Your task to perform on an android device: create a new album in the google photos Image 0: 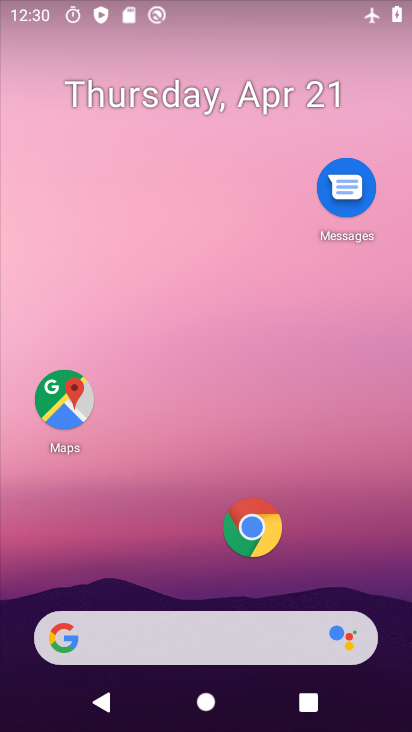
Step 0: drag from (286, 571) to (307, 90)
Your task to perform on an android device: create a new album in the google photos Image 1: 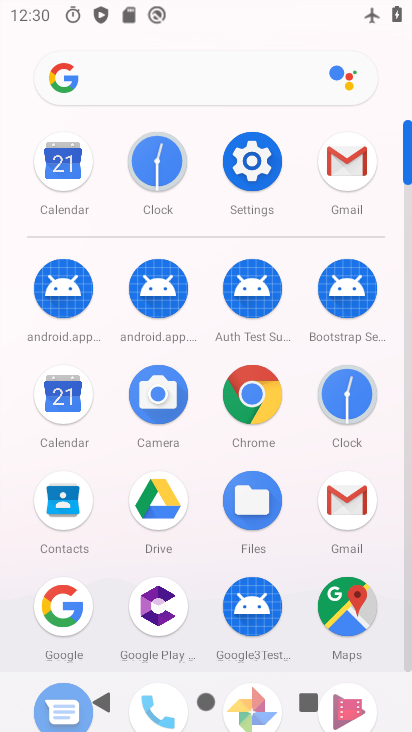
Step 1: drag from (215, 616) to (249, 431)
Your task to perform on an android device: create a new album in the google photos Image 2: 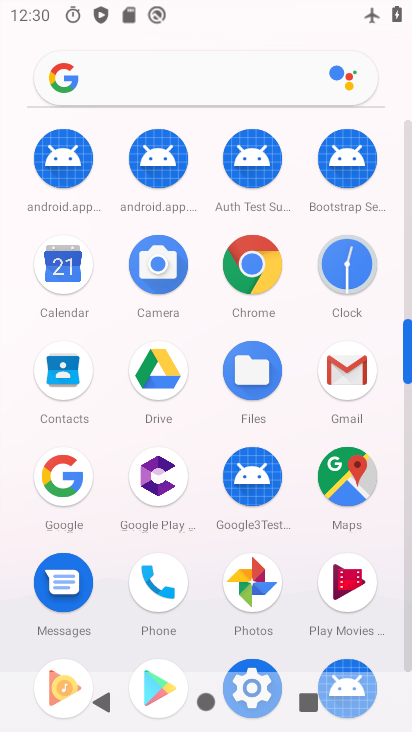
Step 2: drag from (267, 590) to (290, 488)
Your task to perform on an android device: create a new album in the google photos Image 3: 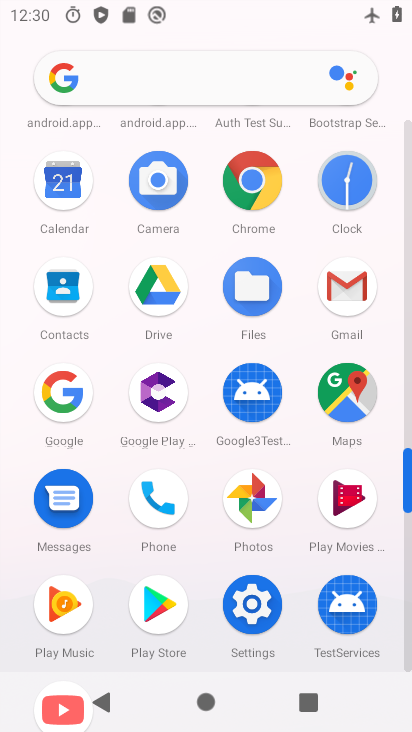
Step 3: click (257, 513)
Your task to perform on an android device: create a new album in the google photos Image 4: 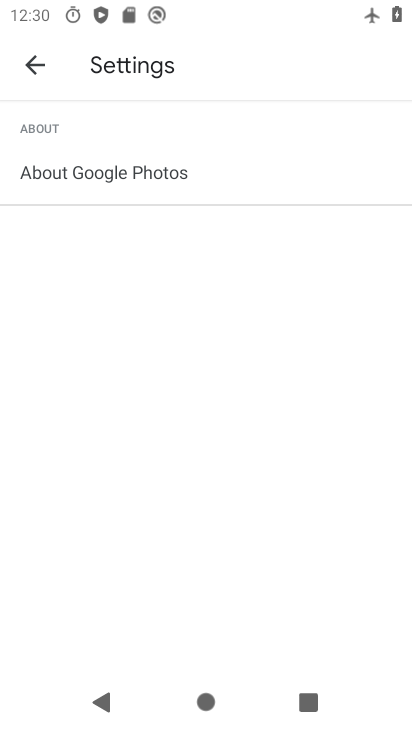
Step 4: click (33, 51)
Your task to perform on an android device: create a new album in the google photos Image 5: 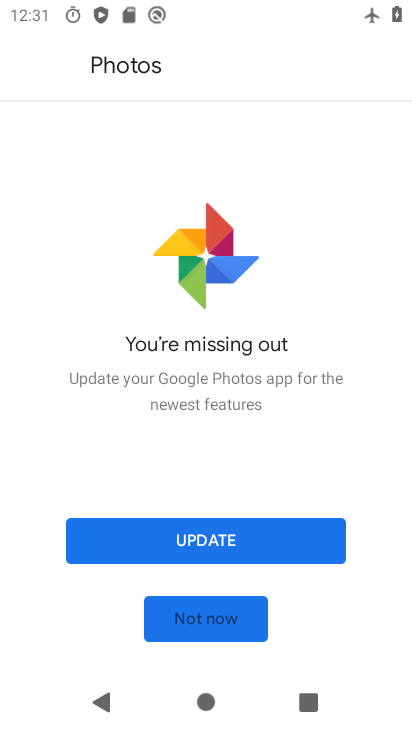
Step 5: click (176, 601)
Your task to perform on an android device: create a new album in the google photos Image 6: 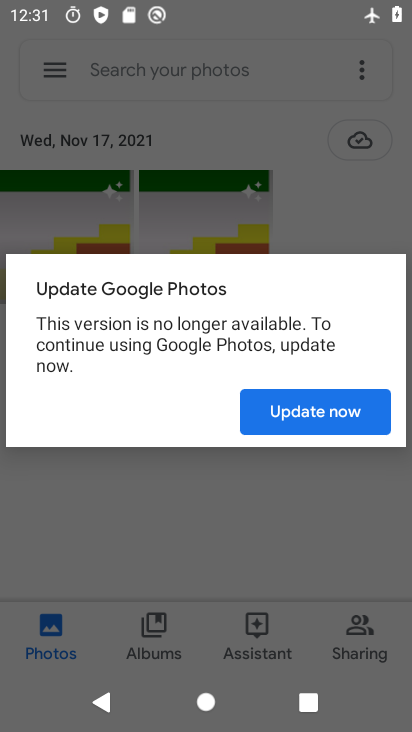
Step 6: click (278, 410)
Your task to perform on an android device: create a new album in the google photos Image 7: 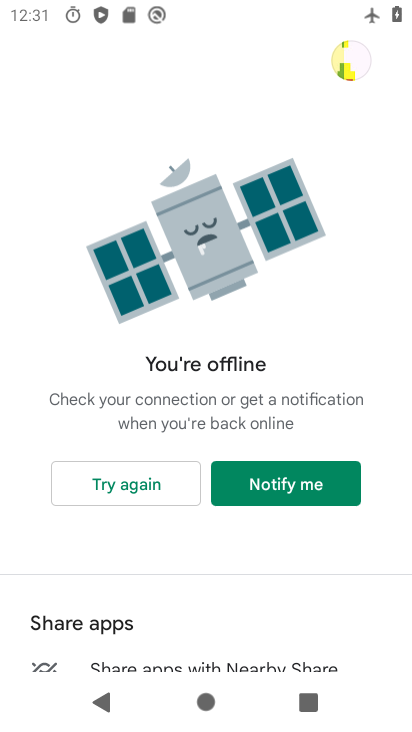
Step 7: click (163, 471)
Your task to perform on an android device: create a new album in the google photos Image 8: 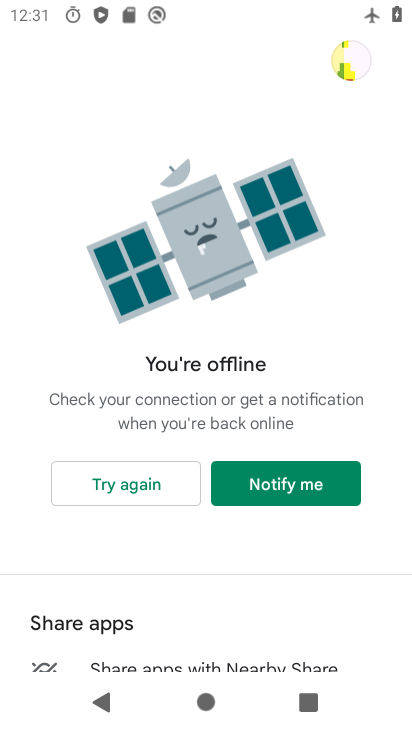
Step 8: task complete